Your task to perform on an android device: empty trash in google photos Image 0: 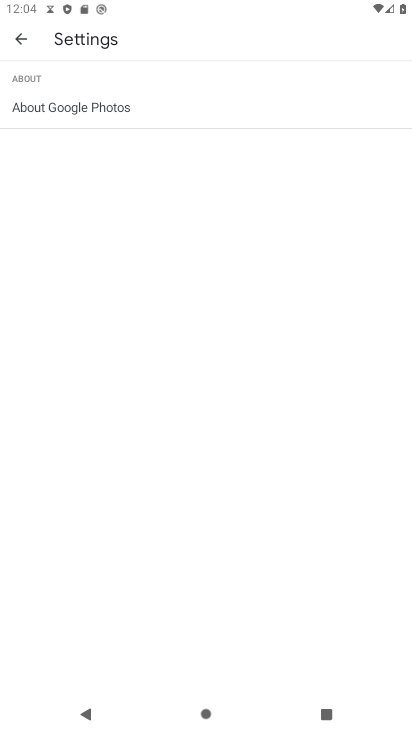
Step 0: press home button
Your task to perform on an android device: empty trash in google photos Image 1: 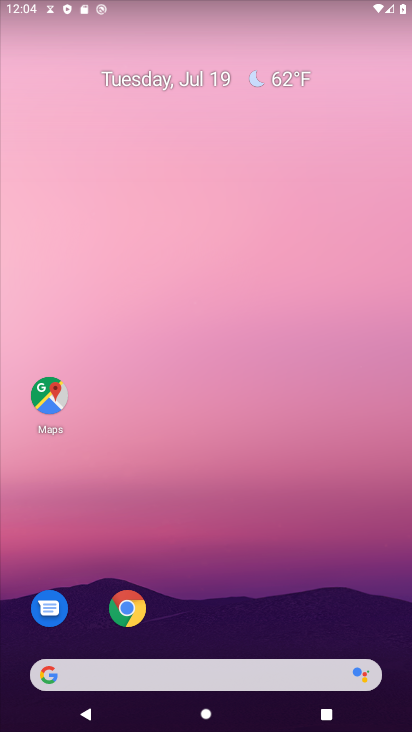
Step 1: drag from (248, 638) to (222, 194)
Your task to perform on an android device: empty trash in google photos Image 2: 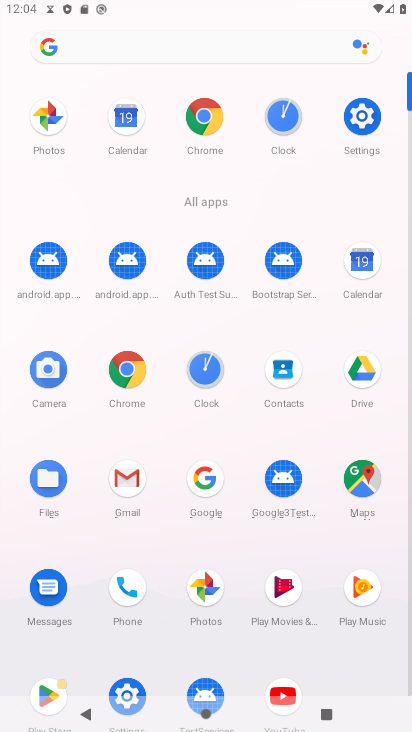
Step 2: click (46, 122)
Your task to perform on an android device: empty trash in google photos Image 3: 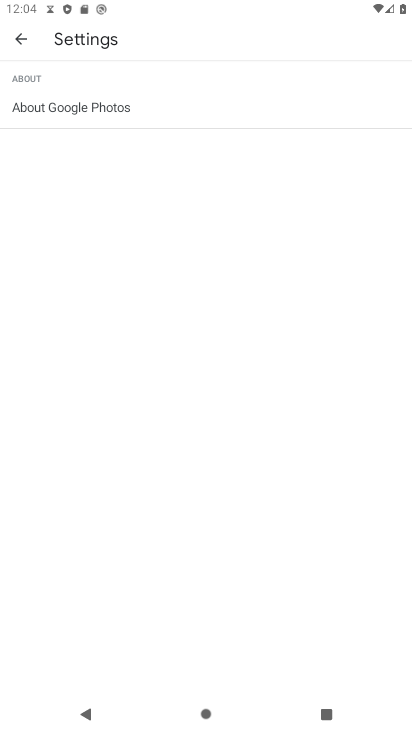
Step 3: click (27, 42)
Your task to perform on an android device: empty trash in google photos Image 4: 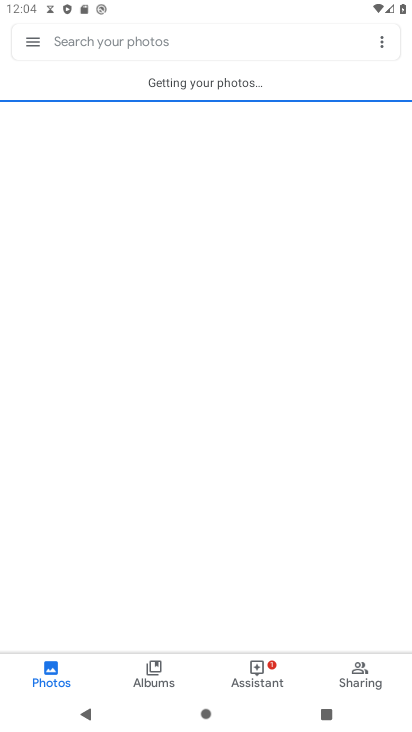
Step 4: click (27, 42)
Your task to perform on an android device: empty trash in google photos Image 5: 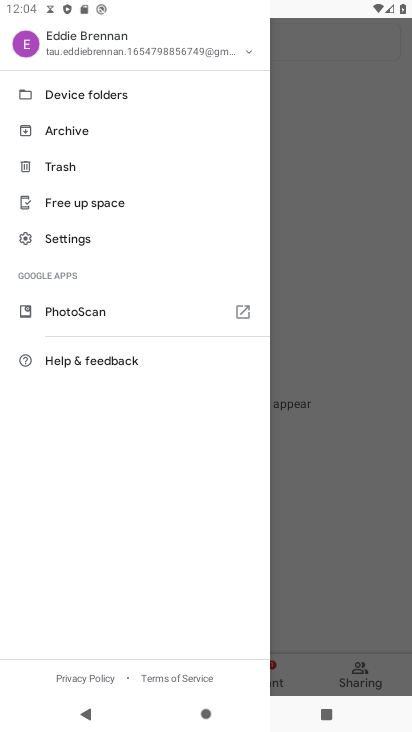
Step 5: click (78, 172)
Your task to perform on an android device: empty trash in google photos Image 6: 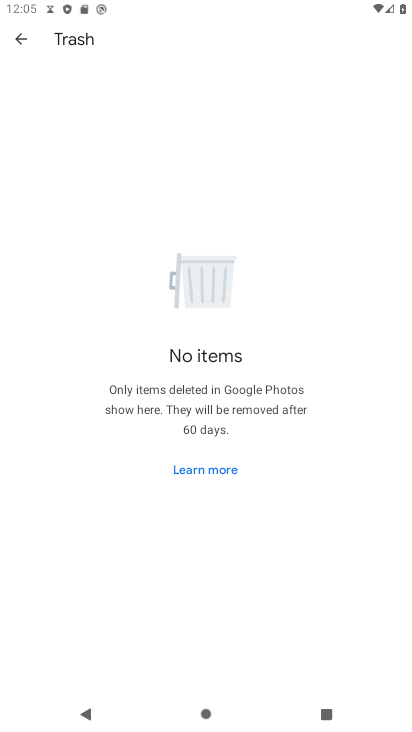
Step 6: task complete